Your task to perform on an android device: Open Chrome and go to the settings page Image 0: 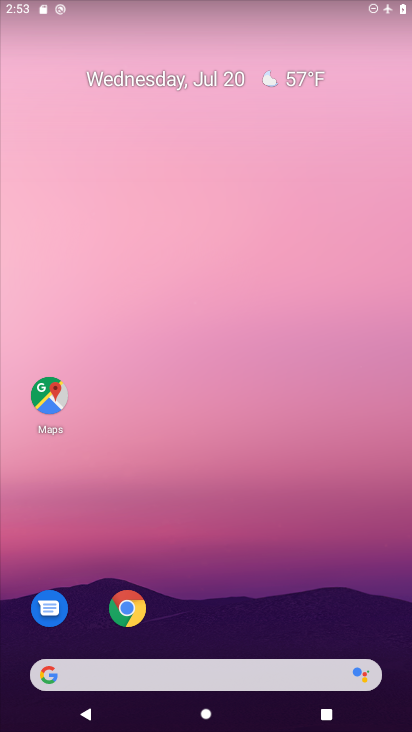
Step 0: drag from (234, 727) to (234, 159)
Your task to perform on an android device: Open Chrome and go to the settings page Image 1: 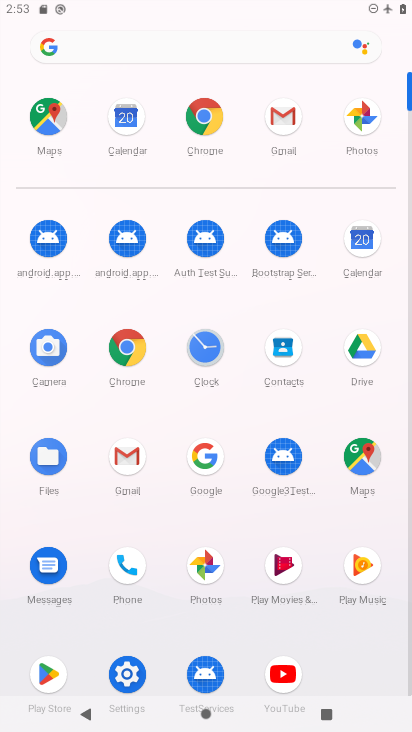
Step 1: click (203, 119)
Your task to perform on an android device: Open Chrome and go to the settings page Image 2: 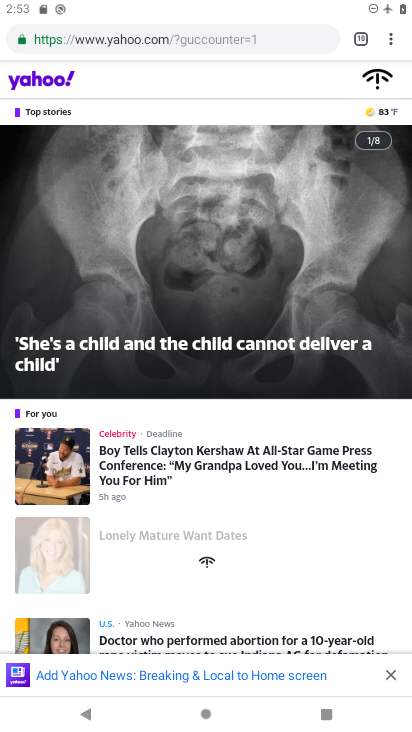
Step 2: click (392, 40)
Your task to perform on an android device: Open Chrome and go to the settings page Image 3: 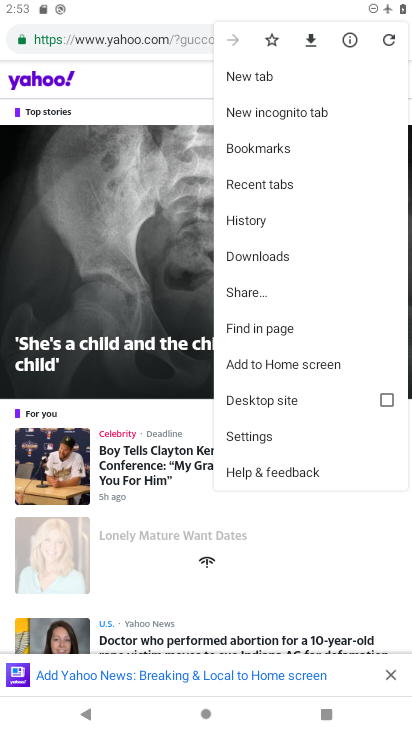
Step 3: click (254, 432)
Your task to perform on an android device: Open Chrome and go to the settings page Image 4: 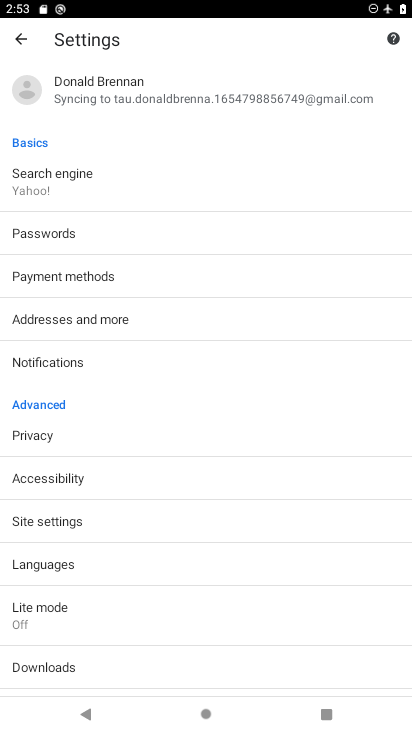
Step 4: task complete